Your task to perform on an android device: turn off javascript in the chrome app Image 0: 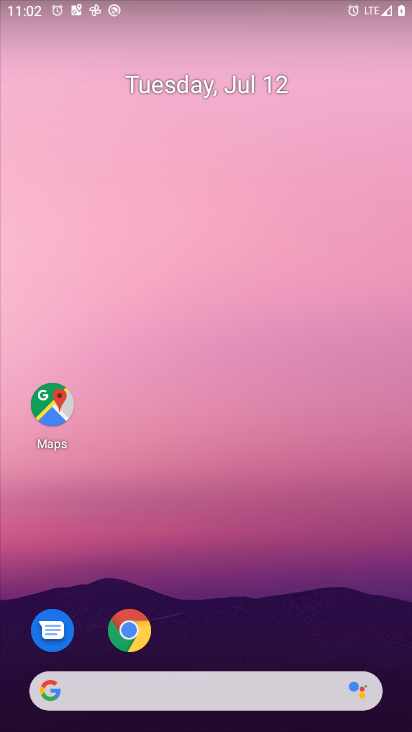
Step 0: drag from (277, 549) to (276, 125)
Your task to perform on an android device: turn off javascript in the chrome app Image 1: 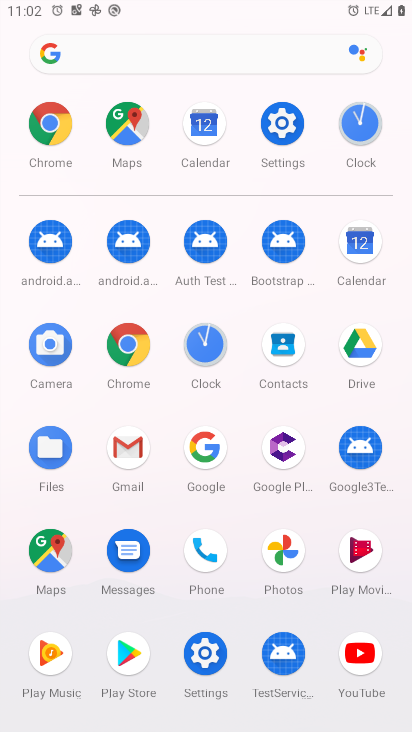
Step 1: click (45, 123)
Your task to perform on an android device: turn off javascript in the chrome app Image 2: 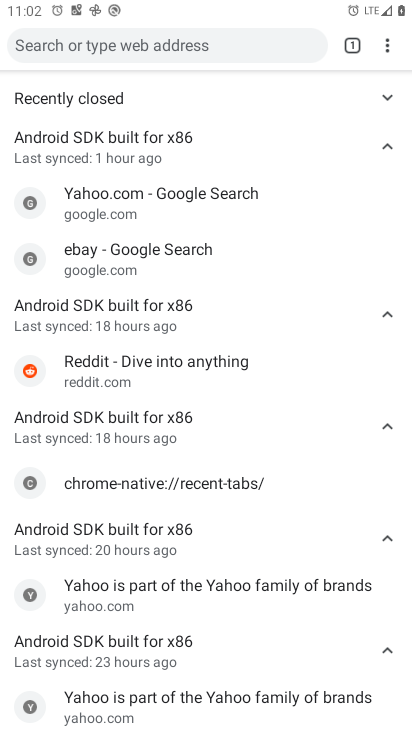
Step 2: drag from (382, 43) to (231, 381)
Your task to perform on an android device: turn off javascript in the chrome app Image 3: 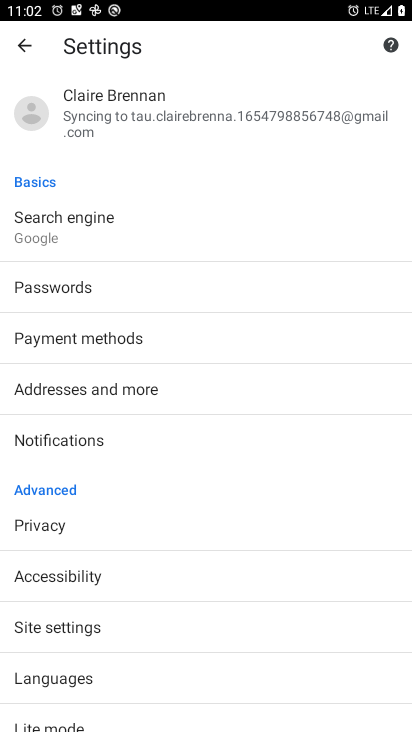
Step 3: click (55, 620)
Your task to perform on an android device: turn off javascript in the chrome app Image 4: 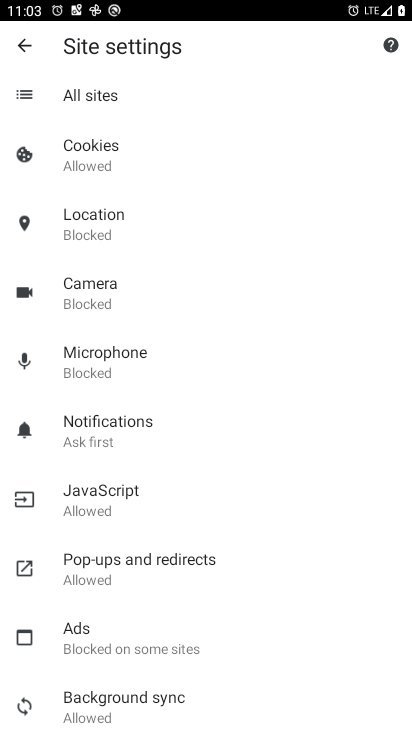
Step 4: click (103, 495)
Your task to perform on an android device: turn off javascript in the chrome app Image 5: 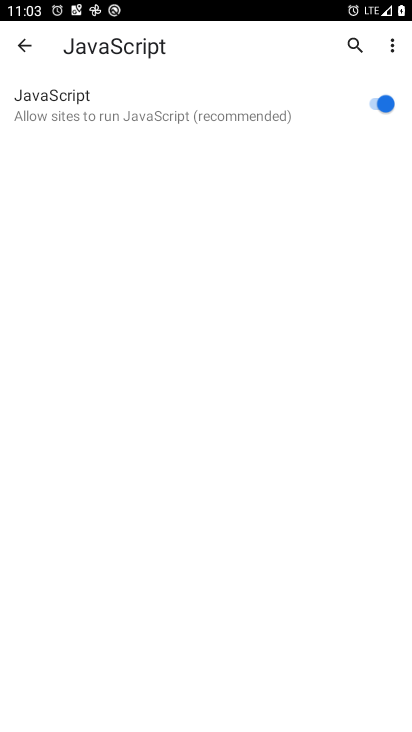
Step 5: click (384, 98)
Your task to perform on an android device: turn off javascript in the chrome app Image 6: 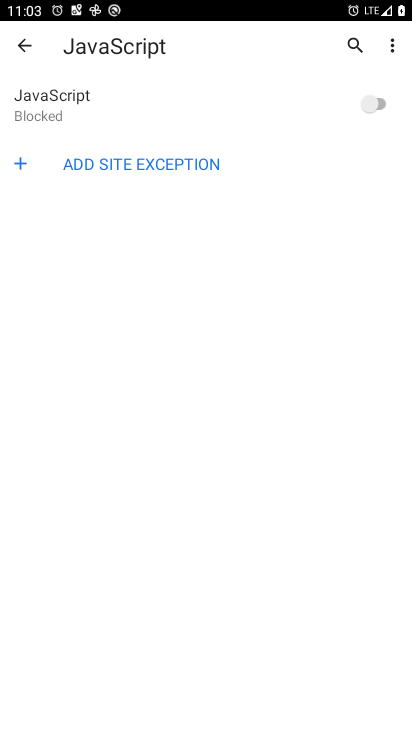
Step 6: task complete